Your task to perform on an android device: change text size in settings app Image 0: 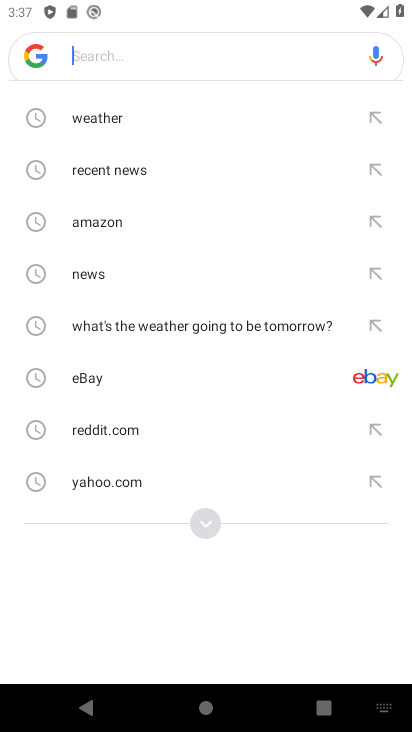
Step 0: press home button
Your task to perform on an android device: change text size in settings app Image 1: 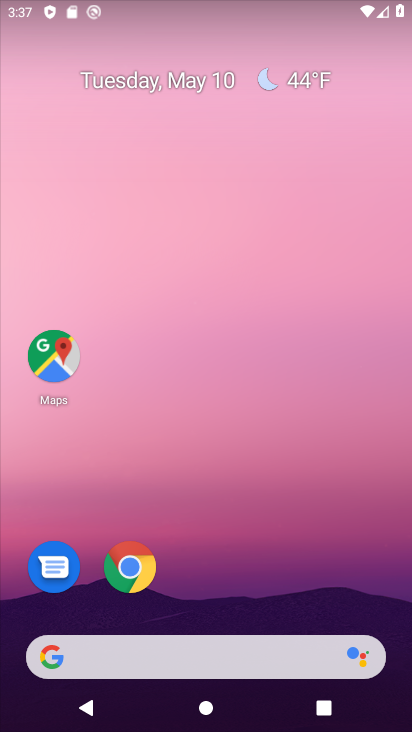
Step 1: drag from (245, 597) to (225, 11)
Your task to perform on an android device: change text size in settings app Image 2: 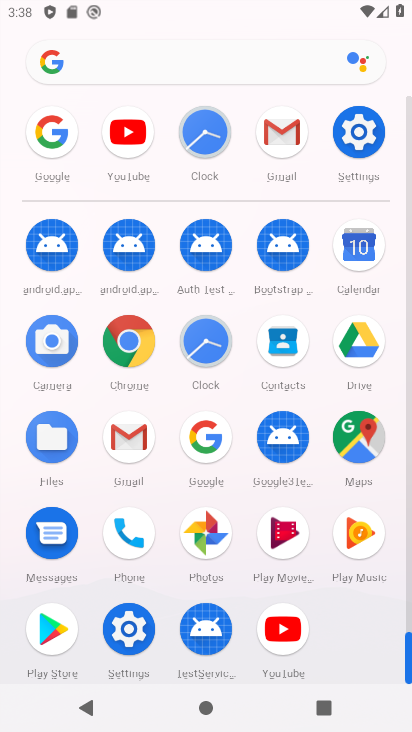
Step 2: click (358, 131)
Your task to perform on an android device: change text size in settings app Image 3: 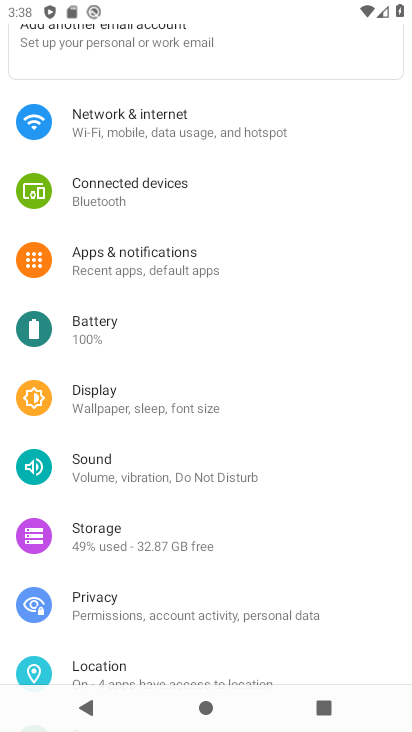
Step 3: drag from (162, 433) to (176, 344)
Your task to perform on an android device: change text size in settings app Image 4: 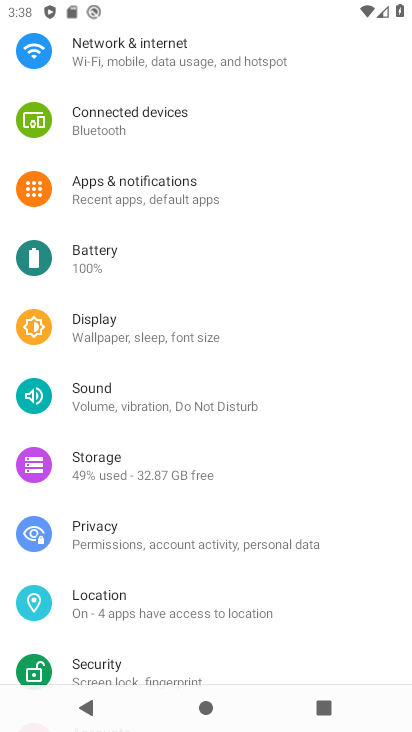
Step 4: drag from (122, 499) to (195, 396)
Your task to perform on an android device: change text size in settings app Image 5: 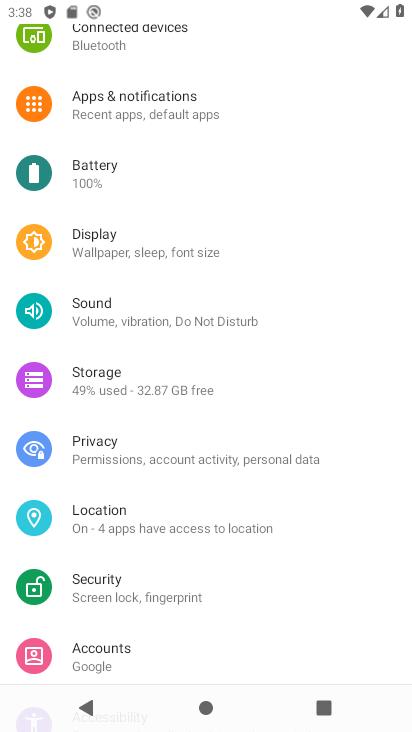
Step 5: drag from (146, 570) to (173, 479)
Your task to perform on an android device: change text size in settings app Image 6: 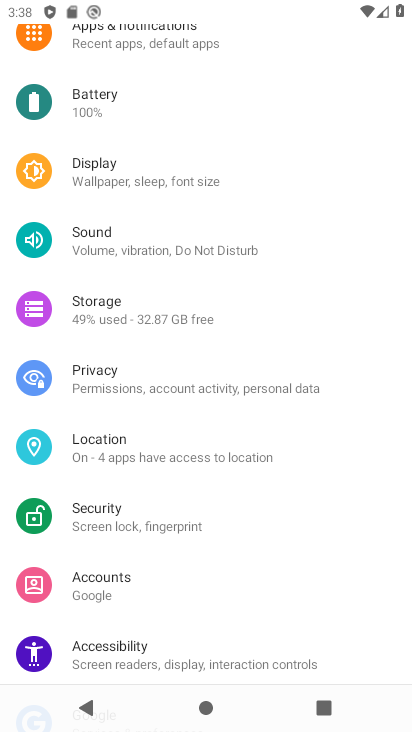
Step 6: drag from (155, 560) to (234, 443)
Your task to perform on an android device: change text size in settings app Image 7: 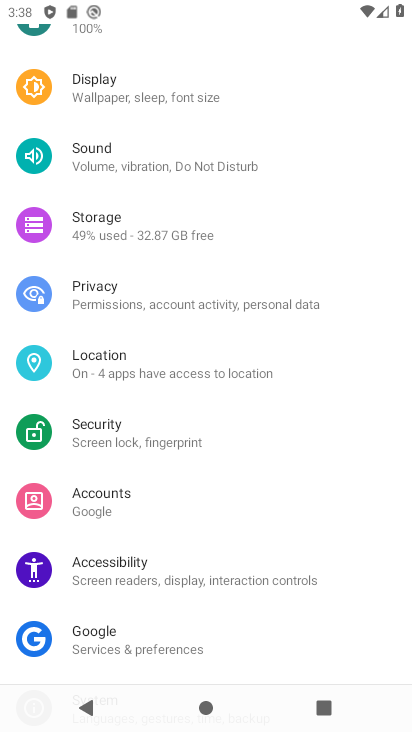
Step 7: drag from (176, 544) to (207, 453)
Your task to perform on an android device: change text size in settings app Image 8: 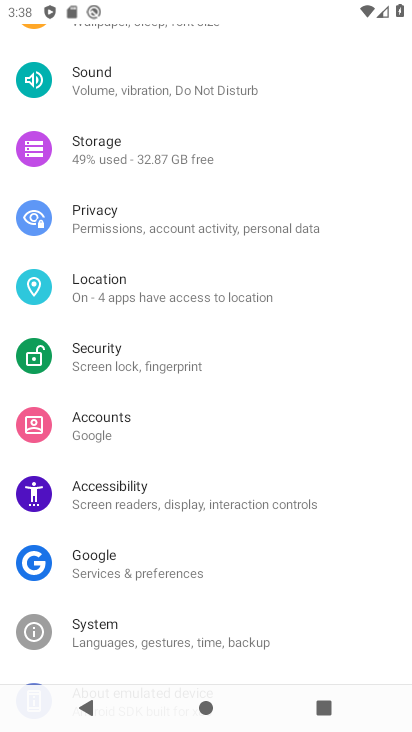
Step 8: click (128, 491)
Your task to perform on an android device: change text size in settings app Image 9: 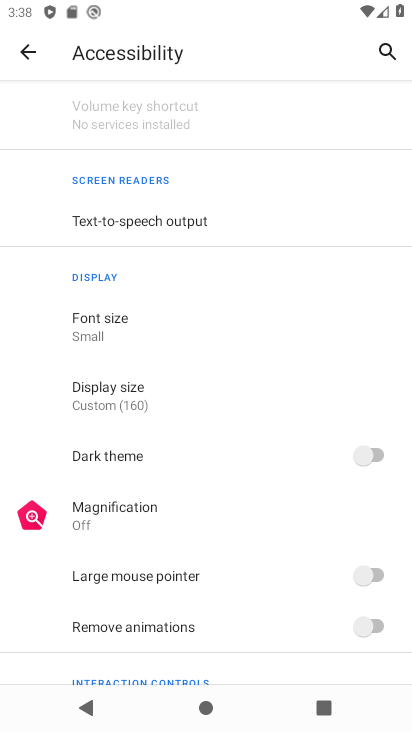
Step 9: click (106, 330)
Your task to perform on an android device: change text size in settings app Image 10: 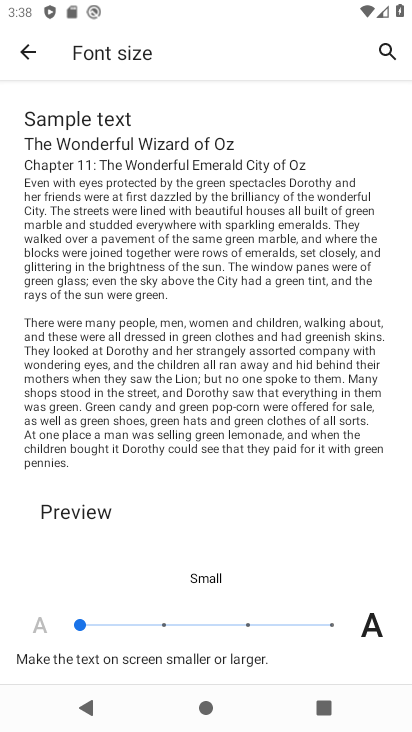
Step 10: click (159, 623)
Your task to perform on an android device: change text size in settings app Image 11: 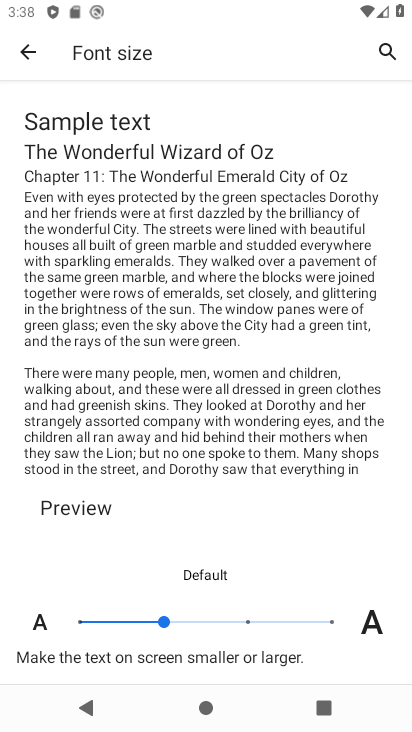
Step 11: task complete